Your task to perform on an android device: move an email to a new category in the gmail app Image 0: 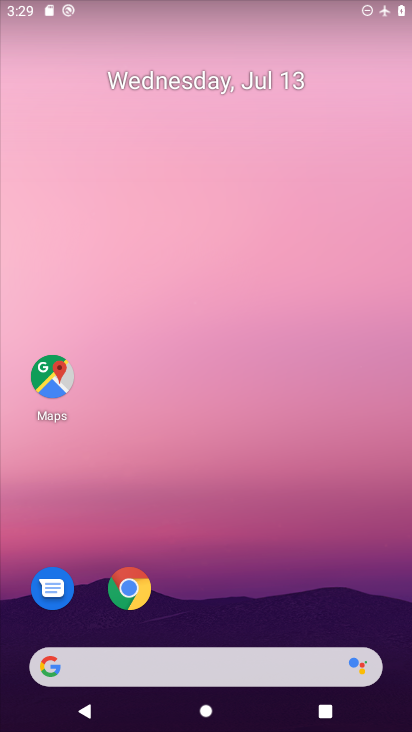
Step 0: drag from (226, 649) to (230, 229)
Your task to perform on an android device: move an email to a new category in the gmail app Image 1: 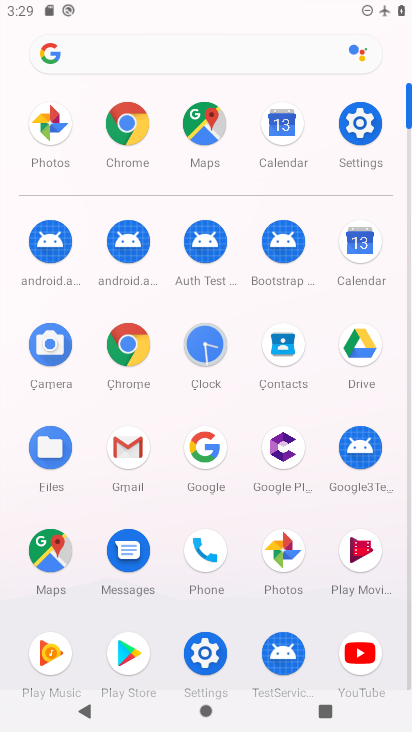
Step 1: click (137, 447)
Your task to perform on an android device: move an email to a new category in the gmail app Image 2: 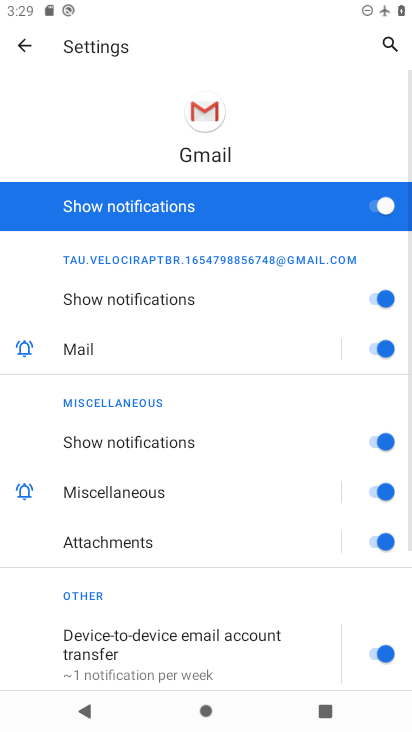
Step 2: click (24, 52)
Your task to perform on an android device: move an email to a new category in the gmail app Image 3: 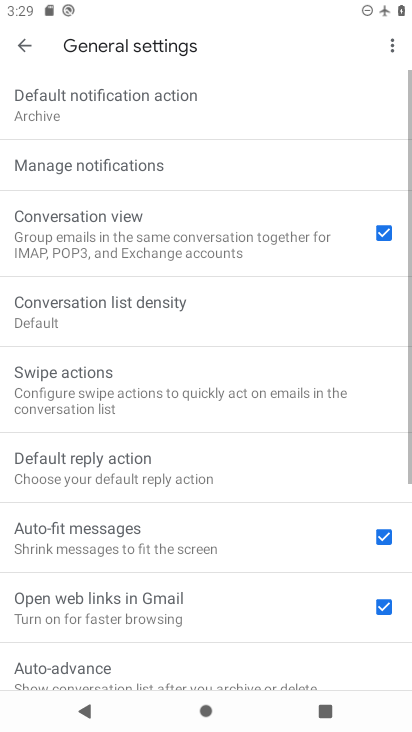
Step 3: click (23, 51)
Your task to perform on an android device: move an email to a new category in the gmail app Image 4: 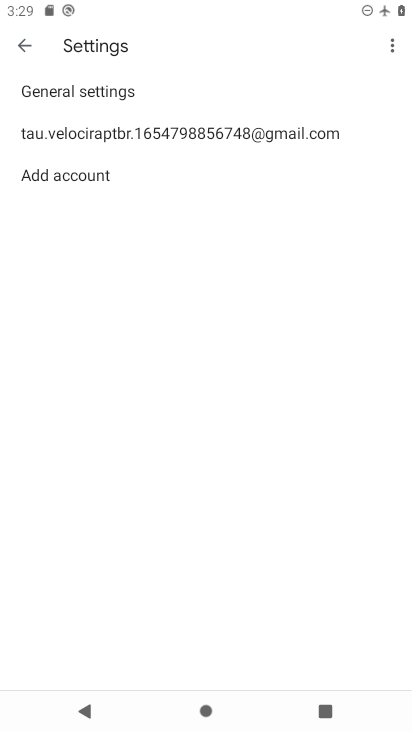
Step 4: click (18, 49)
Your task to perform on an android device: move an email to a new category in the gmail app Image 5: 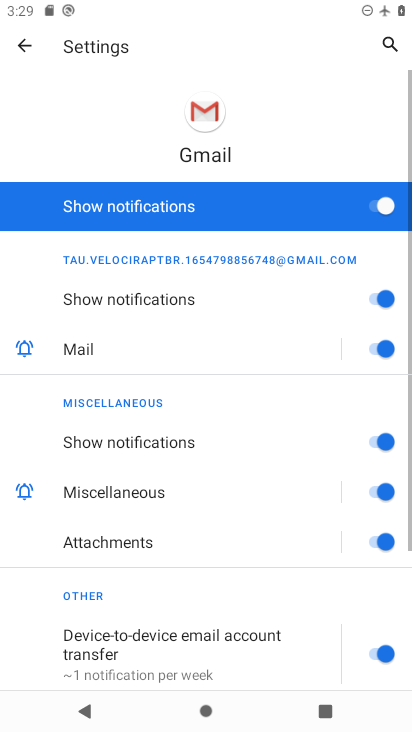
Step 5: click (24, 51)
Your task to perform on an android device: move an email to a new category in the gmail app Image 6: 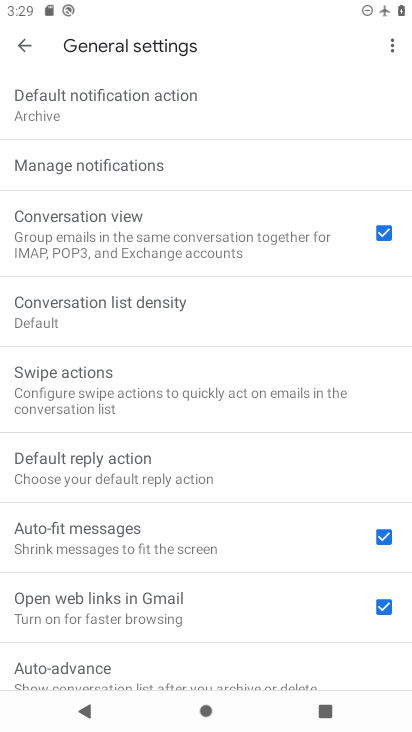
Step 6: click (25, 51)
Your task to perform on an android device: move an email to a new category in the gmail app Image 7: 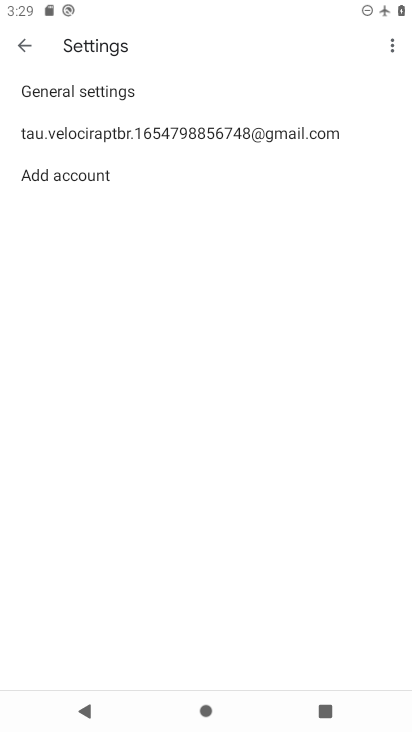
Step 7: click (25, 47)
Your task to perform on an android device: move an email to a new category in the gmail app Image 8: 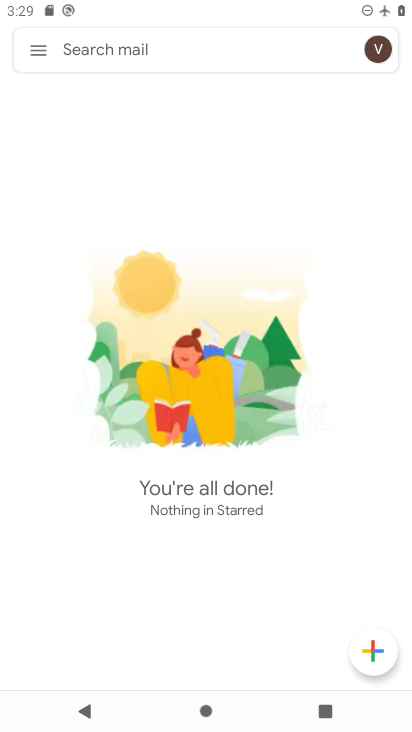
Step 8: task complete